Your task to perform on an android device: Open calendar and show me the first week of next month Image 0: 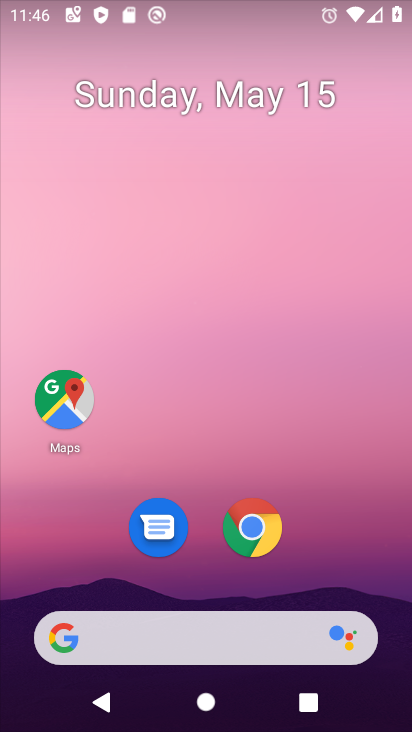
Step 0: drag from (297, 586) to (264, 190)
Your task to perform on an android device: Open calendar and show me the first week of next month Image 1: 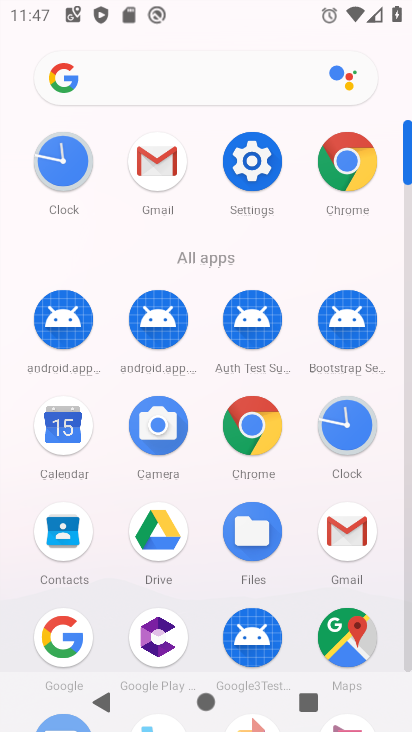
Step 1: click (63, 437)
Your task to perform on an android device: Open calendar and show me the first week of next month Image 2: 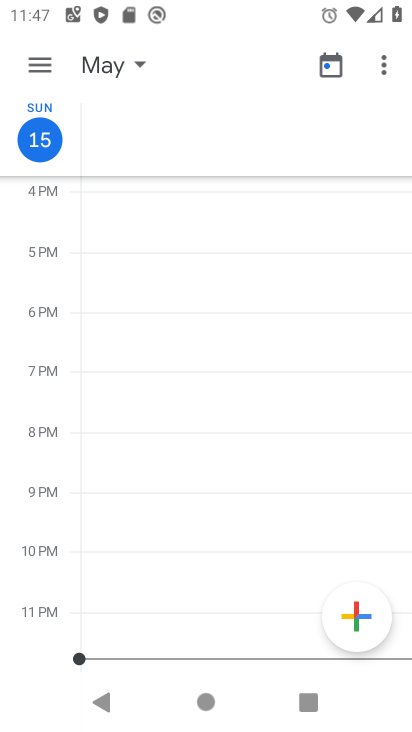
Step 2: click (37, 60)
Your task to perform on an android device: Open calendar and show me the first week of next month Image 3: 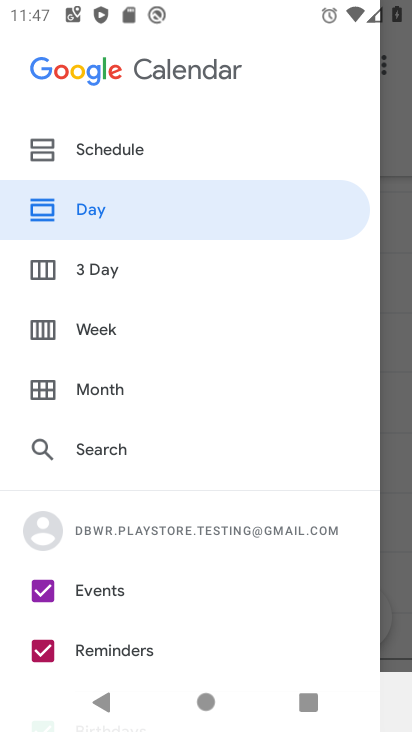
Step 3: click (391, 152)
Your task to perform on an android device: Open calendar and show me the first week of next month Image 4: 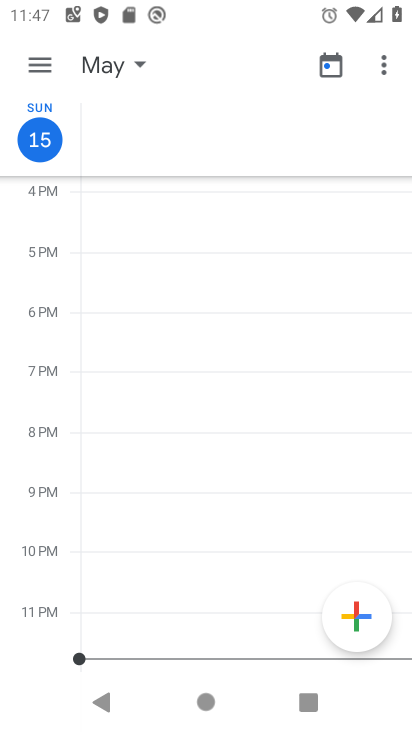
Step 4: click (124, 67)
Your task to perform on an android device: Open calendar and show me the first week of next month Image 5: 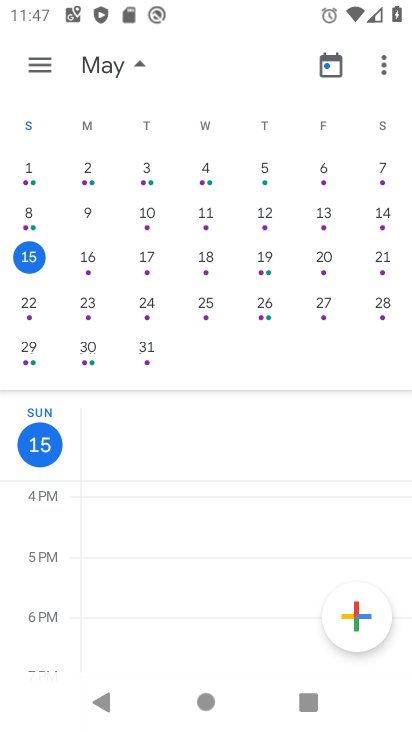
Step 5: drag from (384, 338) to (50, 341)
Your task to perform on an android device: Open calendar and show me the first week of next month Image 6: 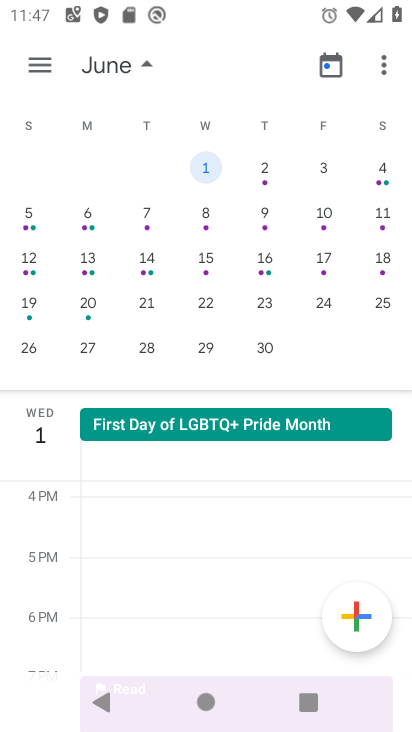
Step 6: click (38, 78)
Your task to perform on an android device: Open calendar and show me the first week of next month Image 7: 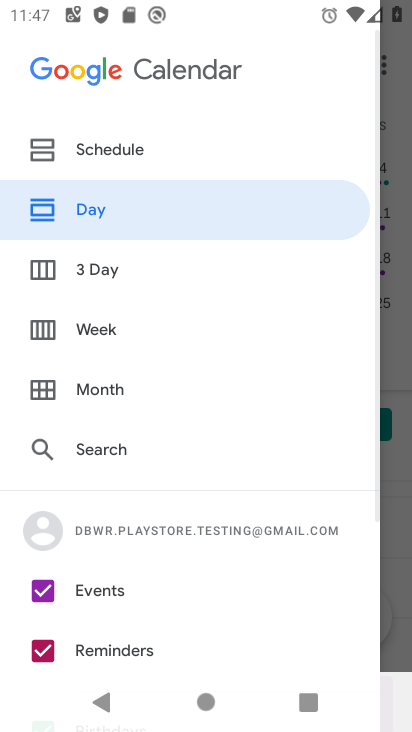
Step 7: click (207, 389)
Your task to perform on an android device: Open calendar and show me the first week of next month Image 8: 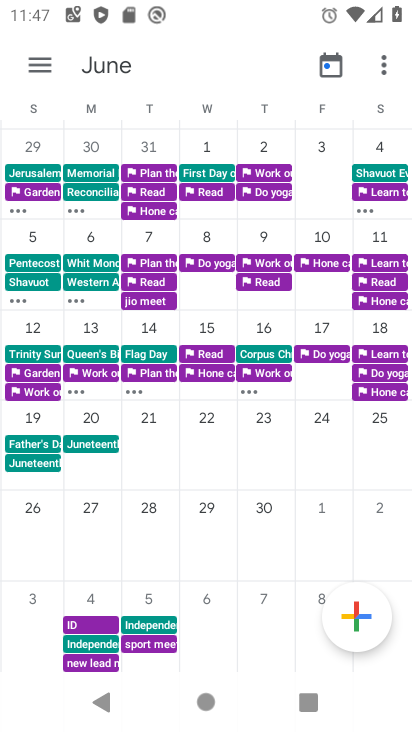
Step 8: task complete